Your task to perform on an android device: Open Google Maps Image 0: 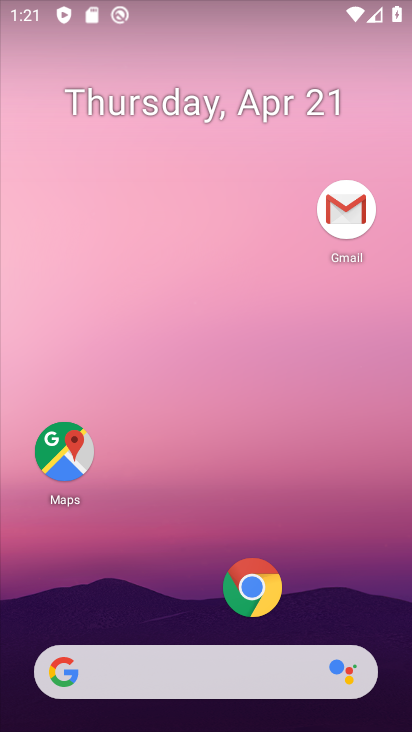
Step 0: drag from (323, 617) to (291, 167)
Your task to perform on an android device: Open Google Maps Image 1: 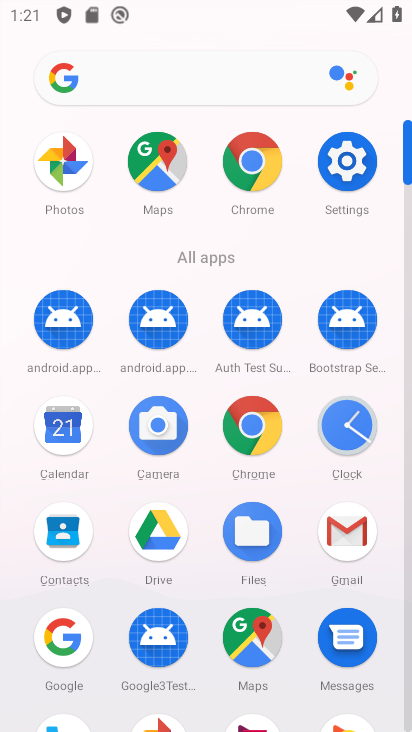
Step 1: click (257, 640)
Your task to perform on an android device: Open Google Maps Image 2: 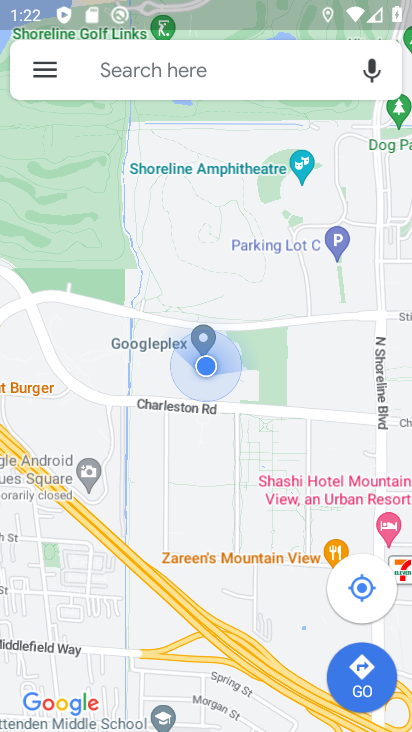
Step 2: task complete